Your task to perform on an android device: What is the news today? Image 0: 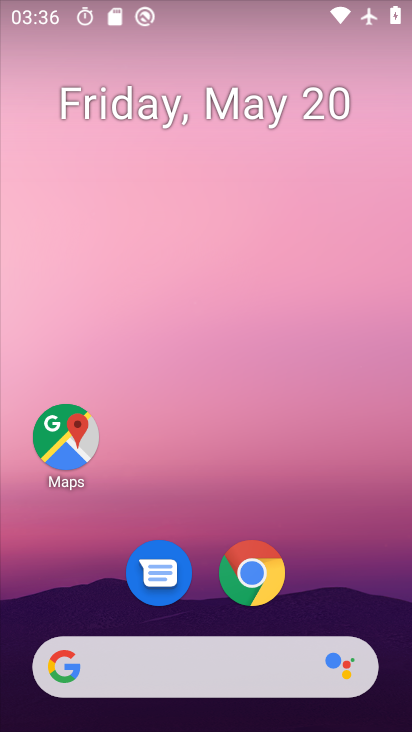
Step 0: drag from (194, 608) to (152, 265)
Your task to perform on an android device: What is the news today? Image 1: 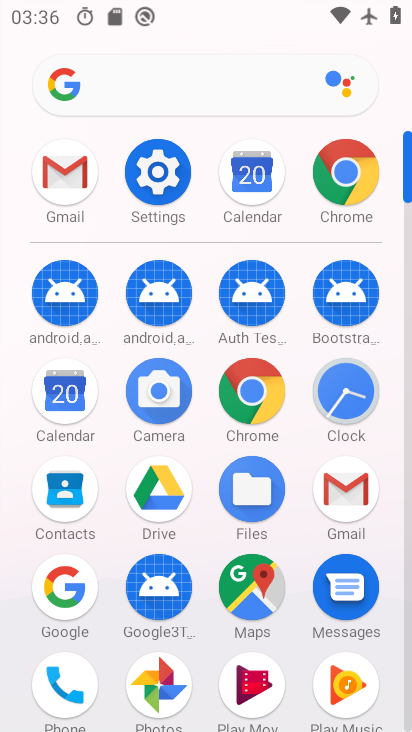
Step 1: click (51, 601)
Your task to perform on an android device: What is the news today? Image 2: 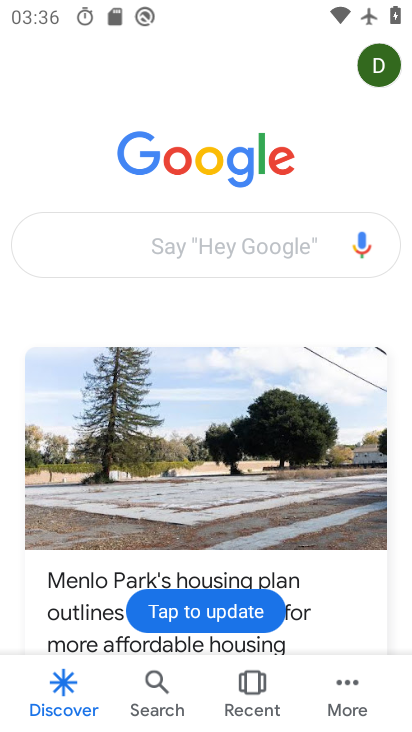
Step 2: click (156, 252)
Your task to perform on an android device: What is the news today? Image 3: 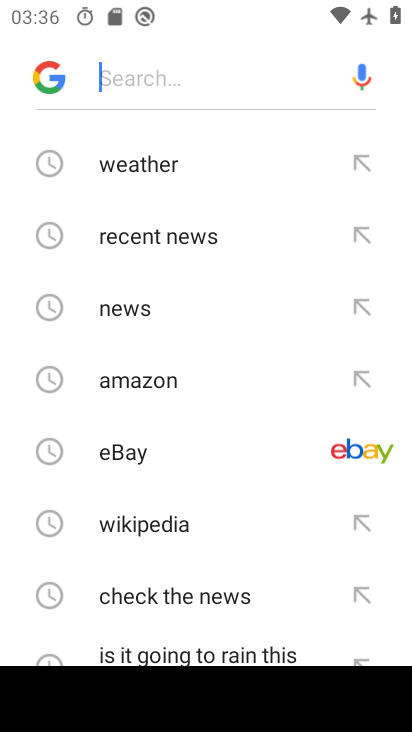
Step 3: click (155, 305)
Your task to perform on an android device: What is the news today? Image 4: 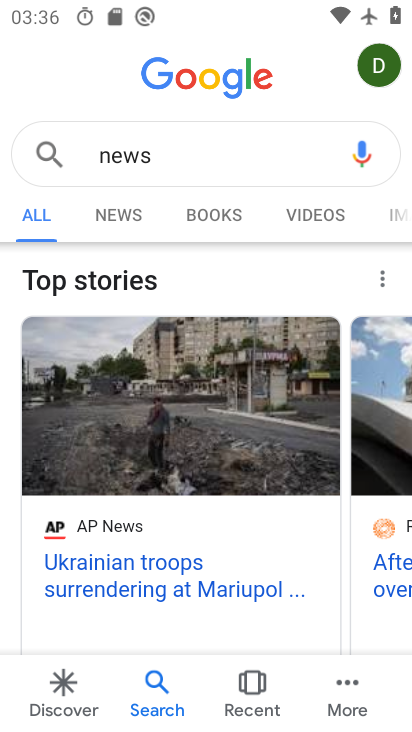
Step 4: click (136, 213)
Your task to perform on an android device: What is the news today? Image 5: 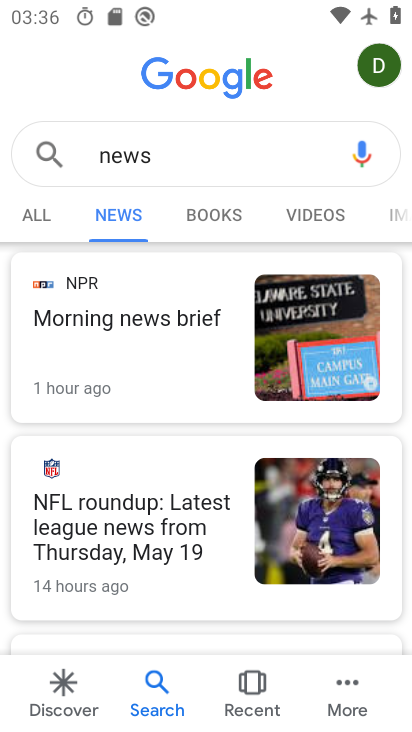
Step 5: task complete